Your task to perform on an android device: Toggle the flashlight Image 0: 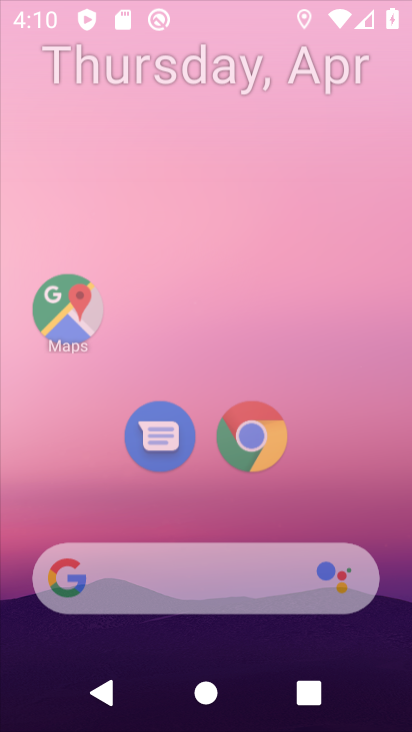
Step 0: click (161, 414)
Your task to perform on an android device: Toggle the flashlight Image 1: 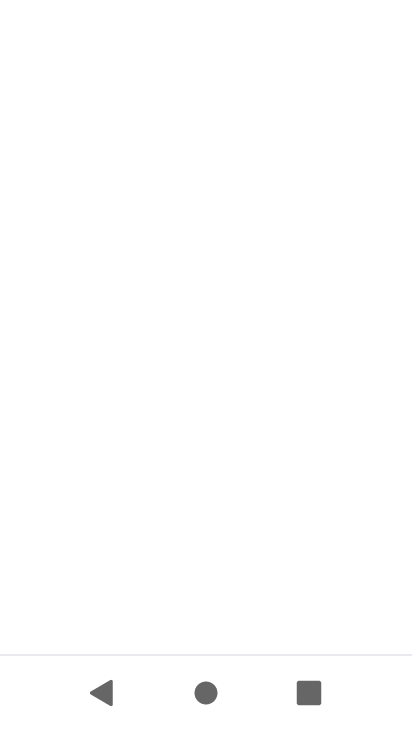
Step 1: drag from (205, 522) to (262, 83)
Your task to perform on an android device: Toggle the flashlight Image 2: 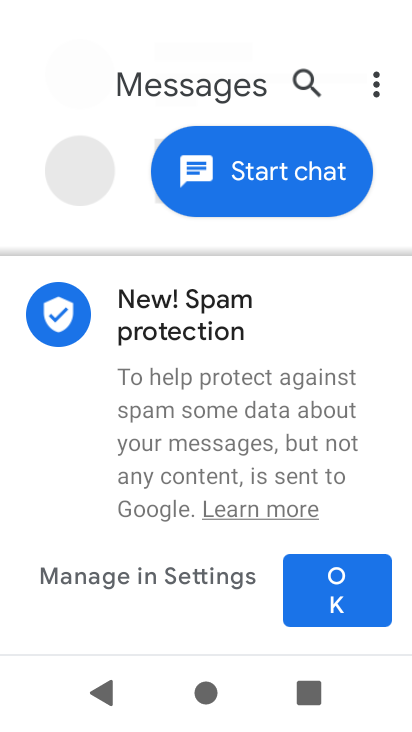
Step 2: press home button
Your task to perform on an android device: Toggle the flashlight Image 3: 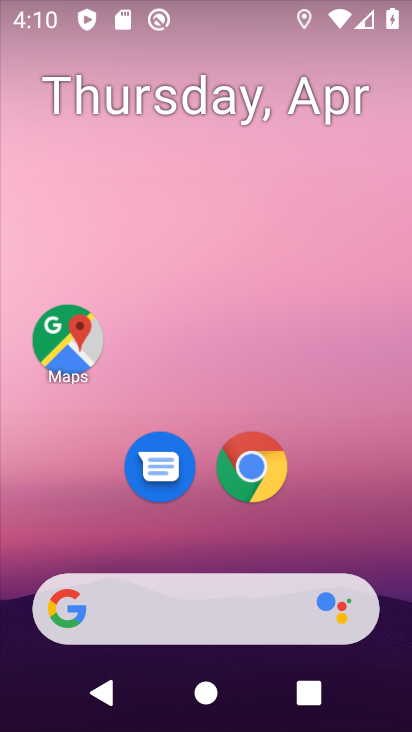
Step 3: drag from (204, 317) to (264, 33)
Your task to perform on an android device: Toggle the flashlight Image 4: 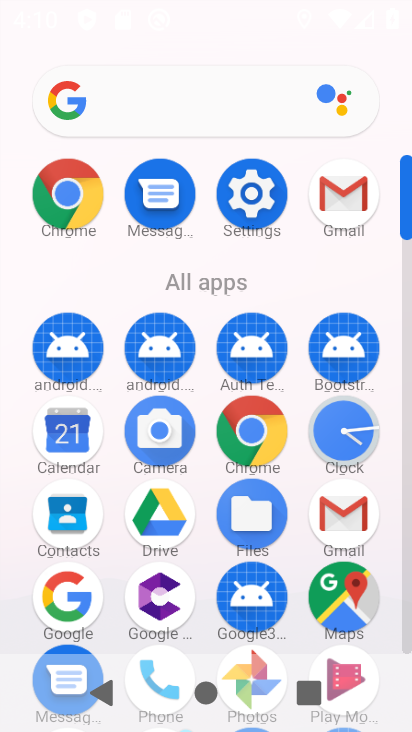
Step 4: click (244, 196)
Your task to perform on an android device: Toggle the flashlight Image 5: 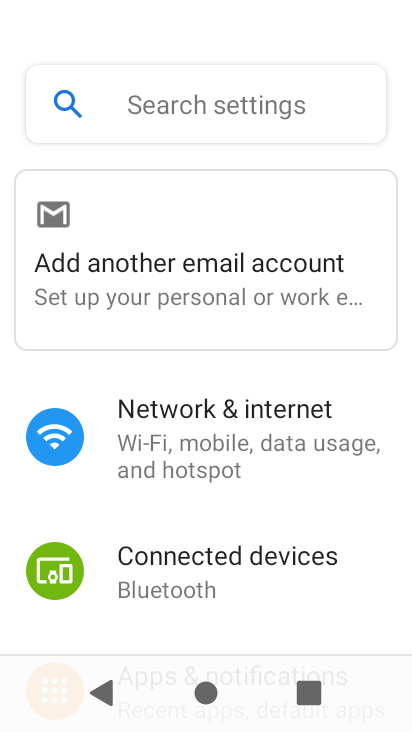
Step 5: click (235, 87)
Your task to perform on an android device: Toggle the flashlight Image 6: 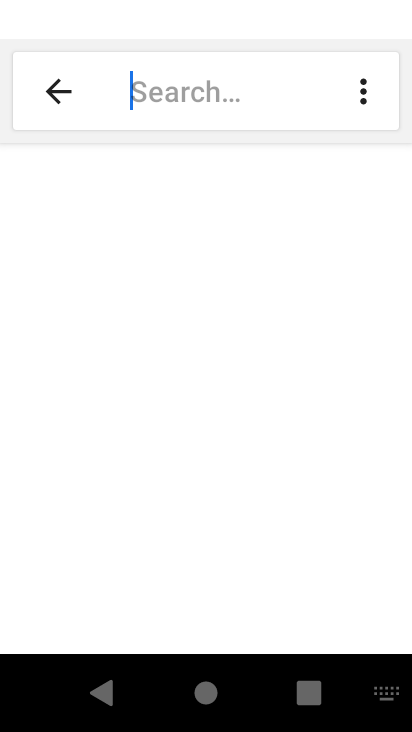
Step 6: type "flashlight"
Your task to perform on an android device: Toggle the flashlight Image 7: 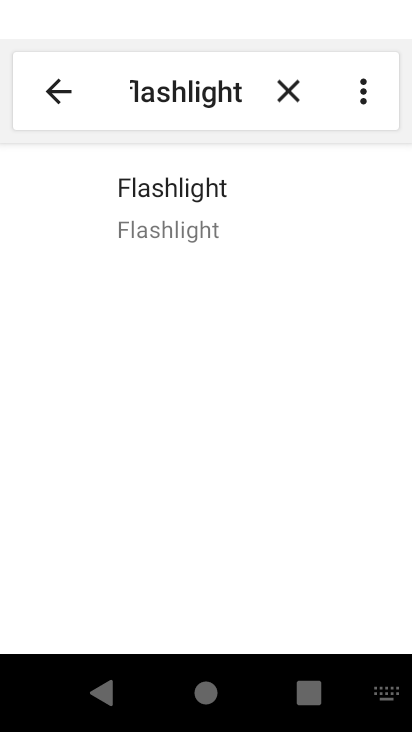
Step 7: click (201, 202)
Your task to perform on an android device: Toggle the flashlight Image 8: 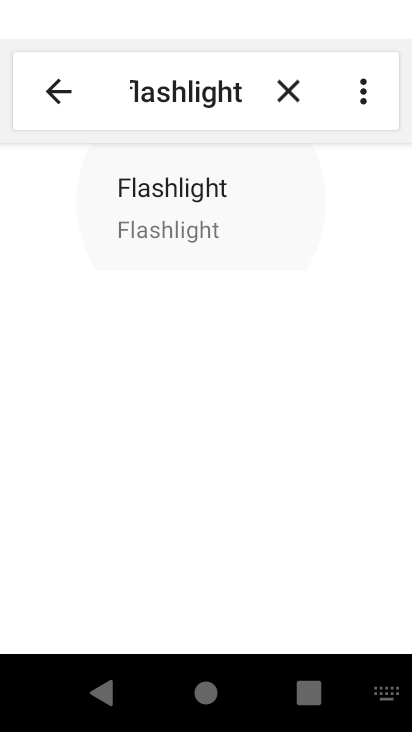
Step 8: click (200, 200)
Your task to perform on an android device: Toggle the flashlight Image 9: 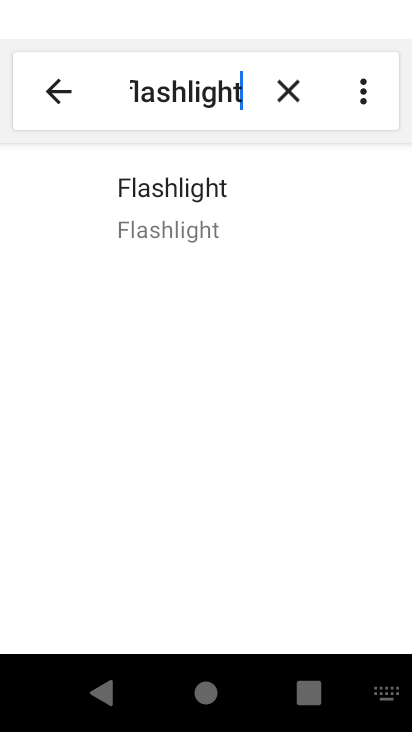
Step 9: task complete